Your task to perform on an android device: create a new album in the google photos Image 0: 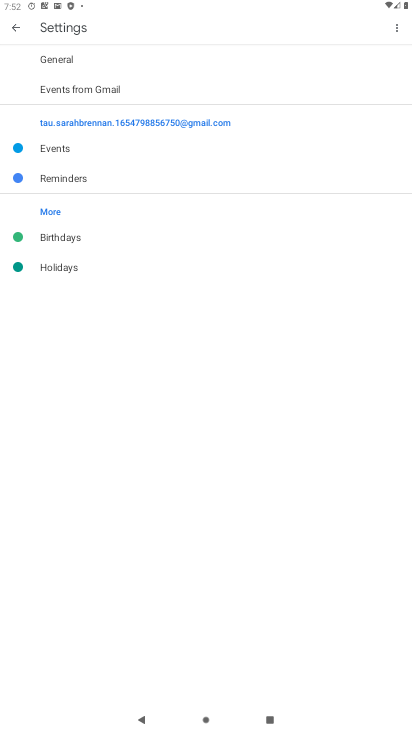
Step 0: press home button
Your task to perform on an android device: create a new album in the google photos Image 1: 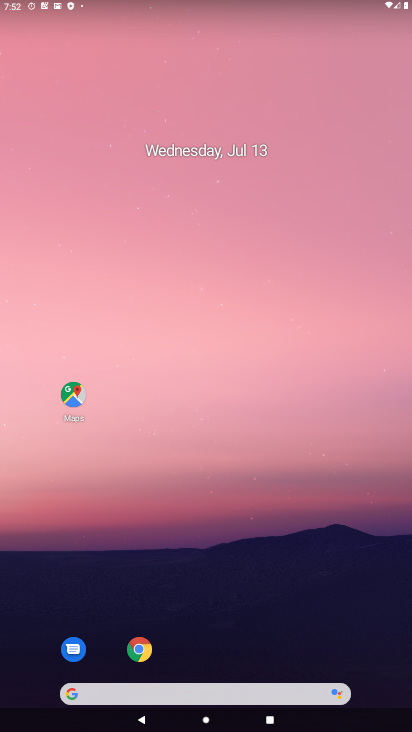
Step 1: drag from (202, 672) to (251, 114)
Your task to perform on an android device: create a new album in the google photos Image 2: 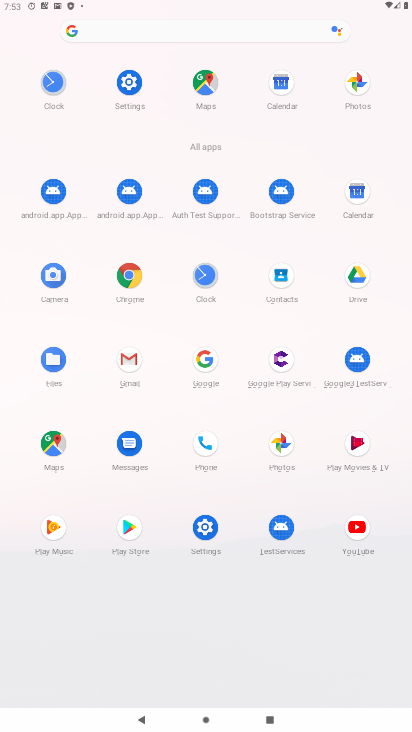
Step 2: click (284, 442)
Your task to perform on an android device: create a new album in the google photos Image 3: 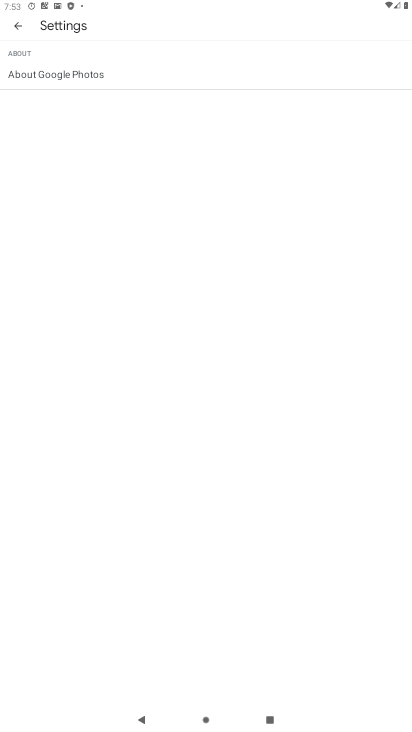
Step 3: click (12, 28)
Your task to perform on an android device: create a new album in the google photos Image 4: 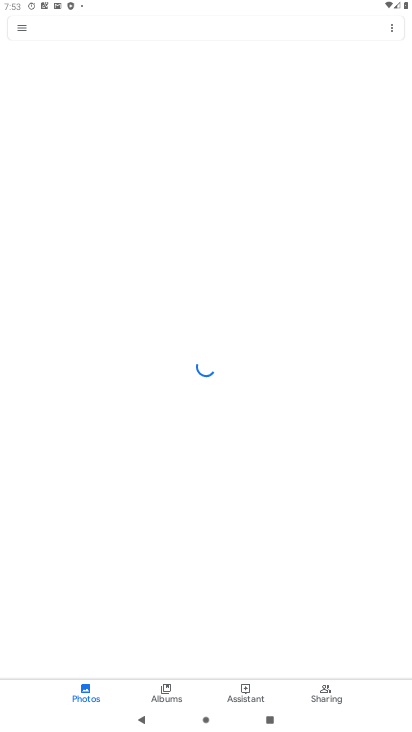
Step 4: click (163, 692)
Your task to perform on an android device: create a new album in the google photos Image 5: 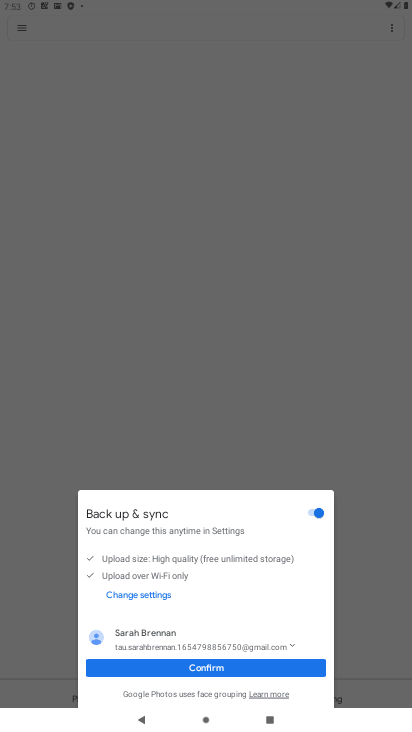
Step 5: click (196, 669)
Your task to perform on an android device: create a new album in the google photos Image 6: 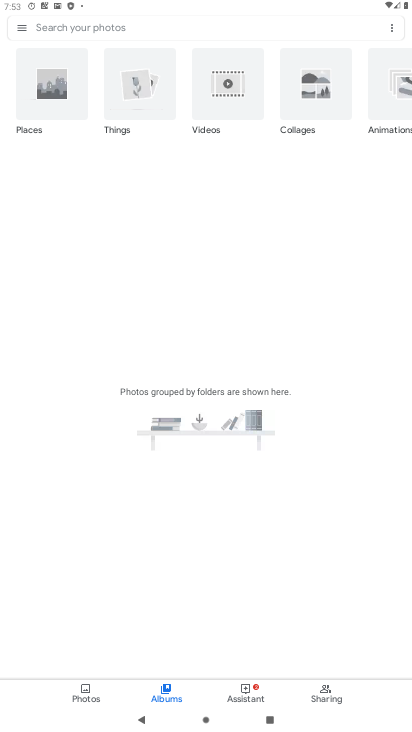
Step 6: task complete